Your task to perform on an android device: uninstall "Google Play services" Image 0: 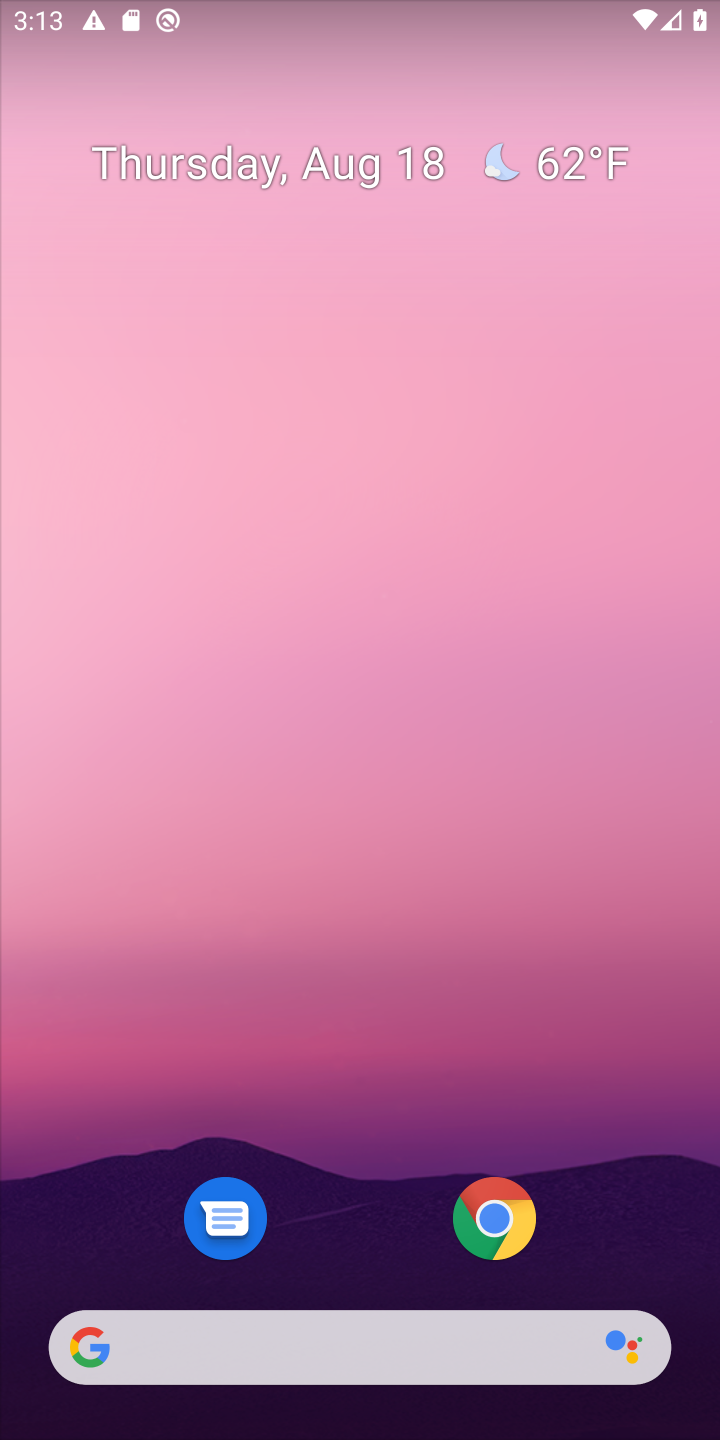
Step 0: drag from (352, 1159) to (233, 207)
Your task to perform on an android device: uninstall "Google Play services" Image 1: 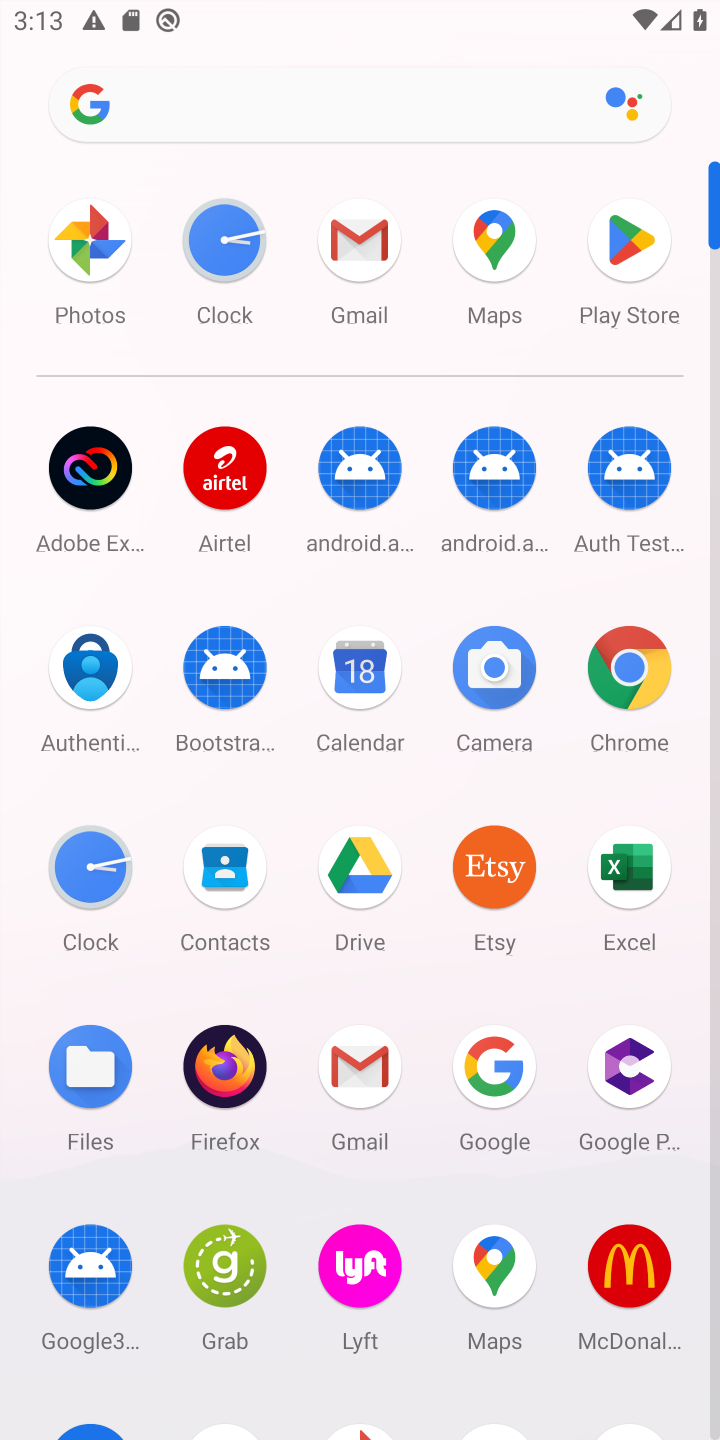
Step 1: click (615, 260)
Your task to perform on an android device: uninstall "Google Play services" Image 2: 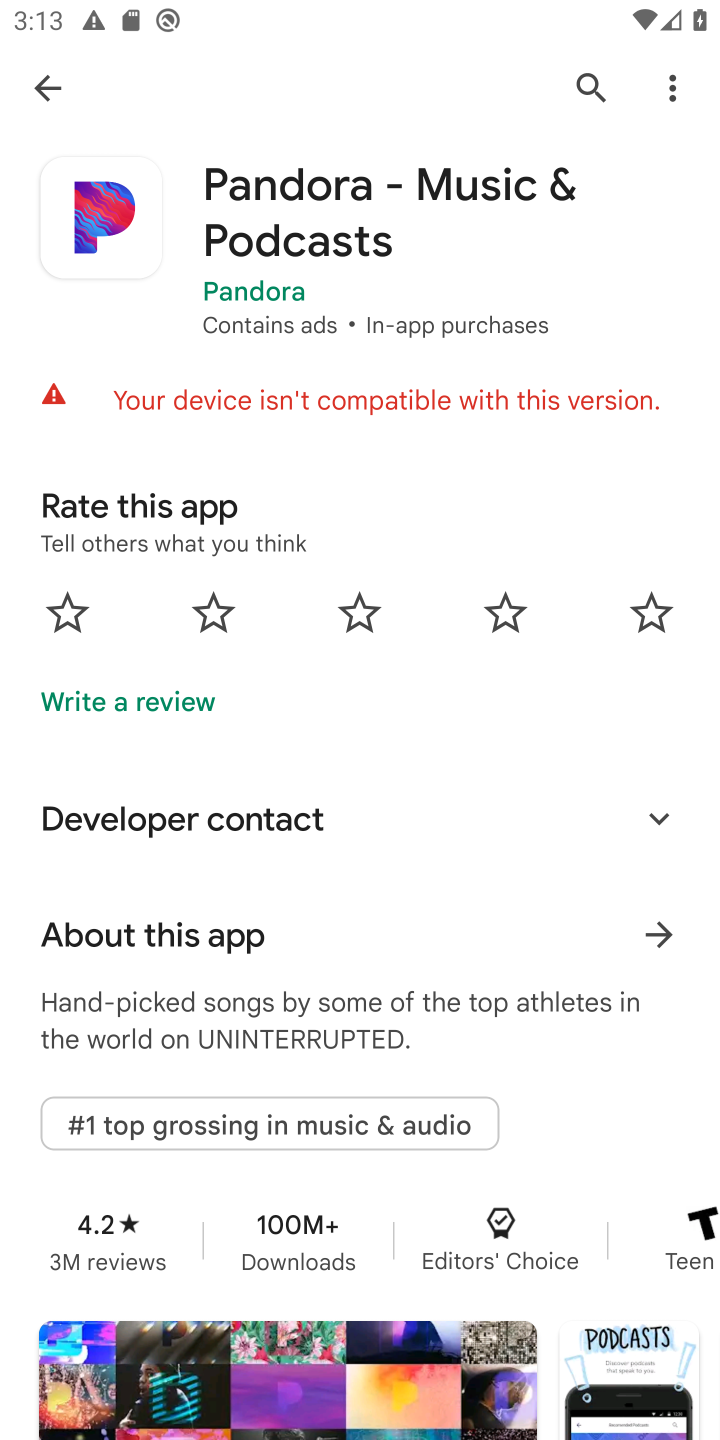
Step 2: click (577, 82)
Your task to perform on an android device: uninstall "Google Play services" Image 3: 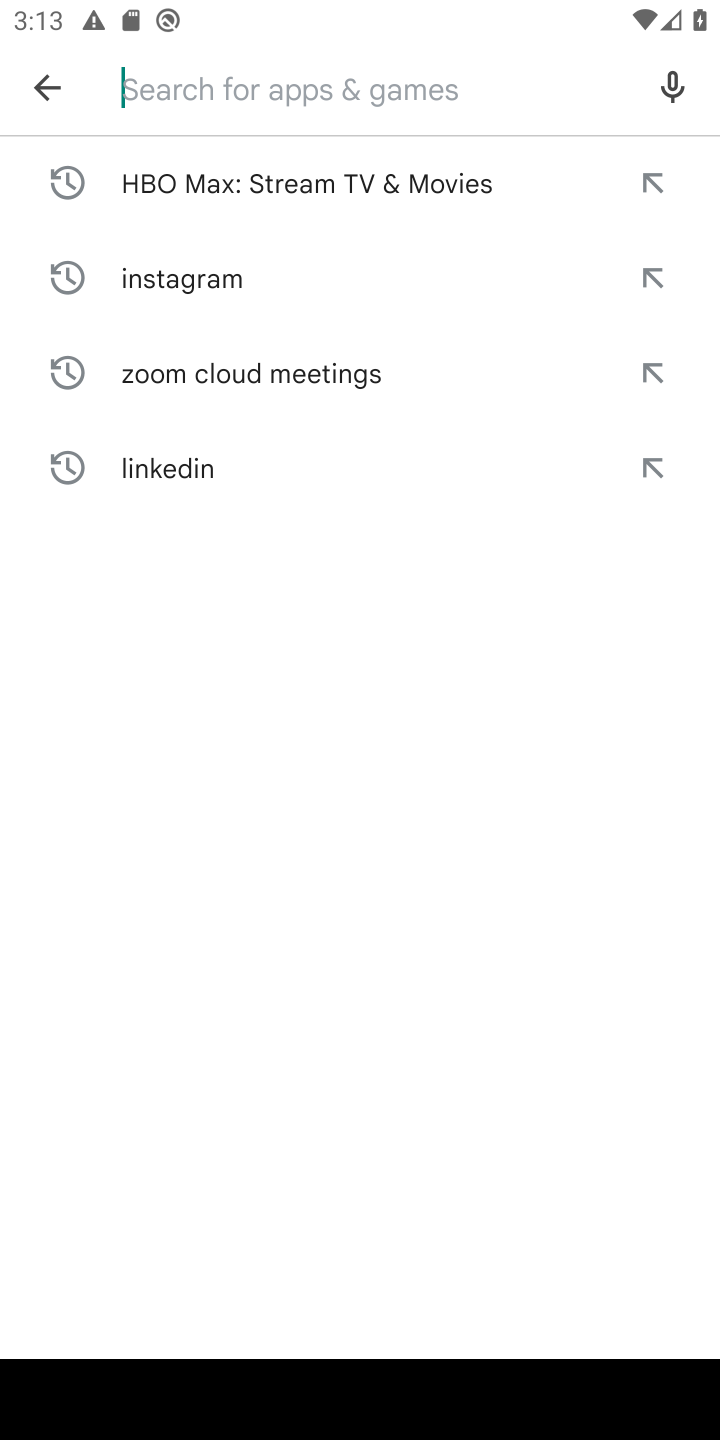
Step 3: type "Google Play services"
Your task to perform on an android device: uninstall "Google Play services" Image 4: 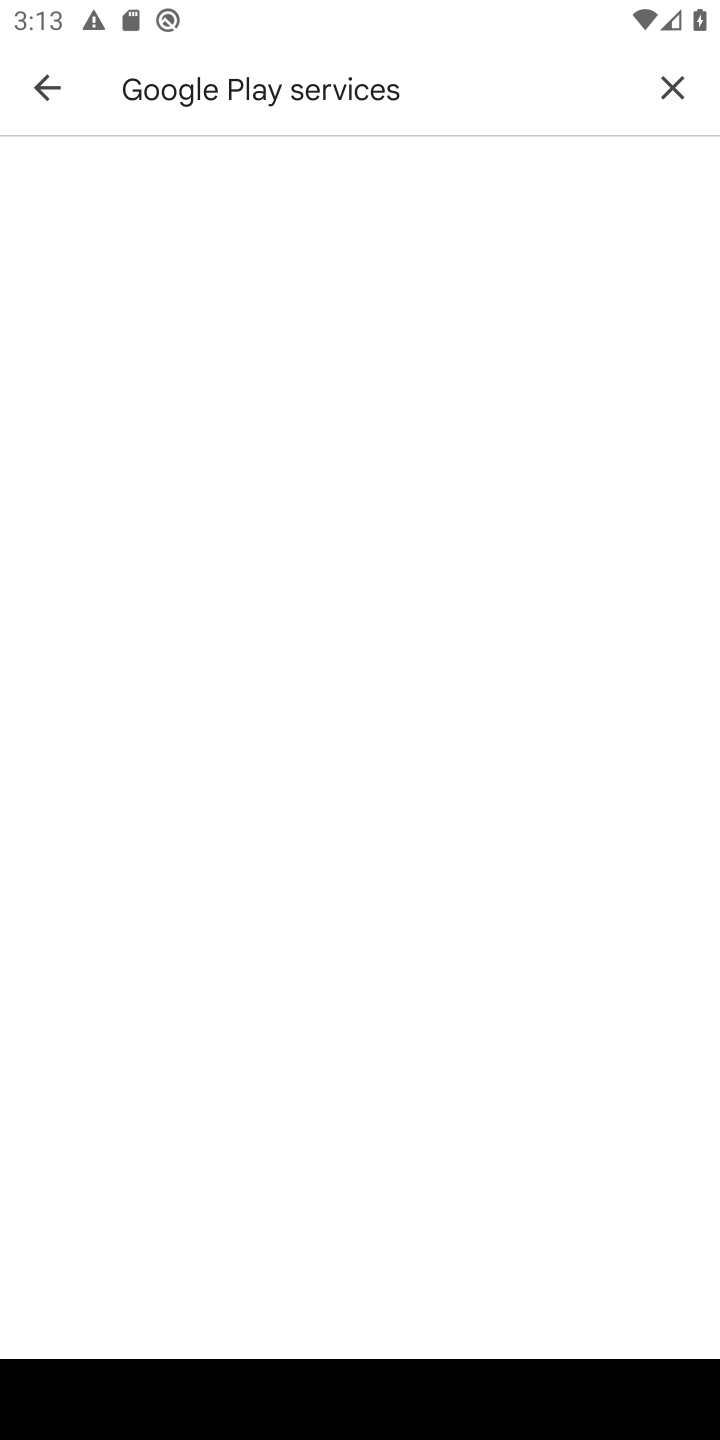
Step 4: task complete